Your task to perform on an android device: Search for sushi restaurants on Maps Image 0: 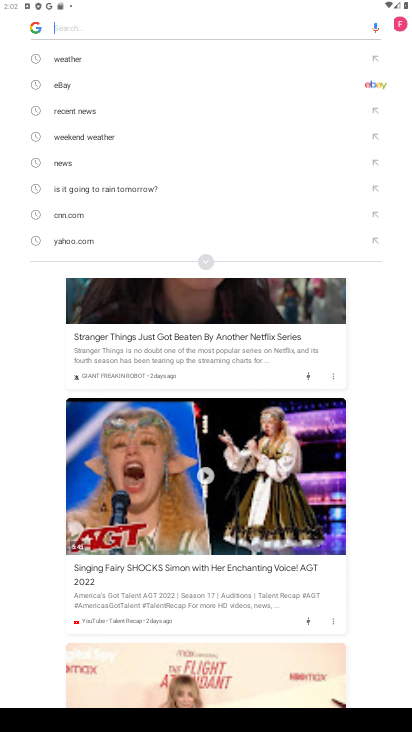
Step 0: press home button
Your task to perform on an android device: Search for sushi restaurants on Maps Image 1: 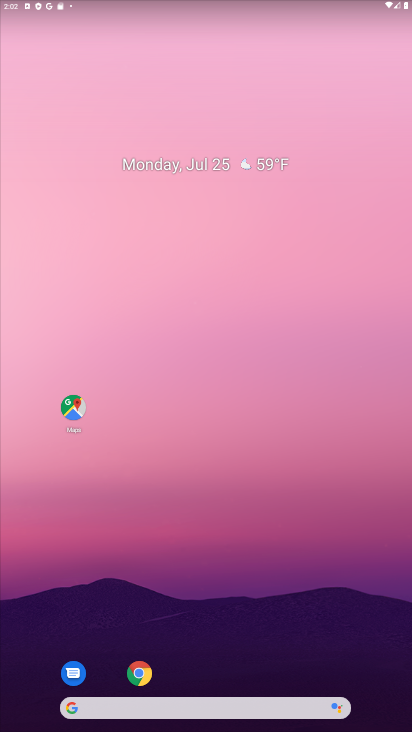
Step 1: click (61, 416)
Your task to perform on an android device: Search for sushi restaurants on Maps Image 2: 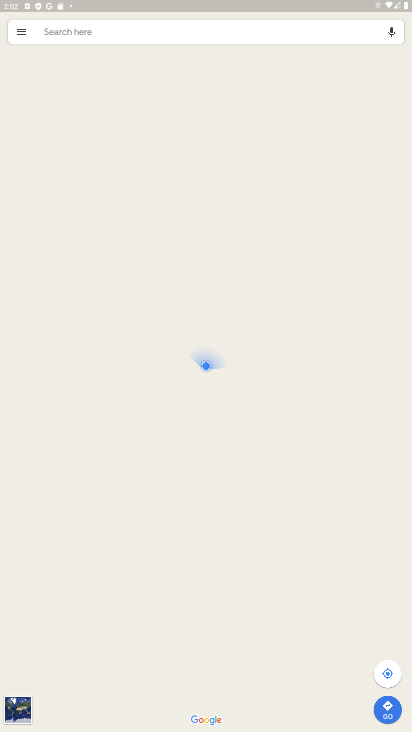
Step 2: click (52, 29)
Your task to perform on an android device: Search for sushi restaurants on Maps Image 3: 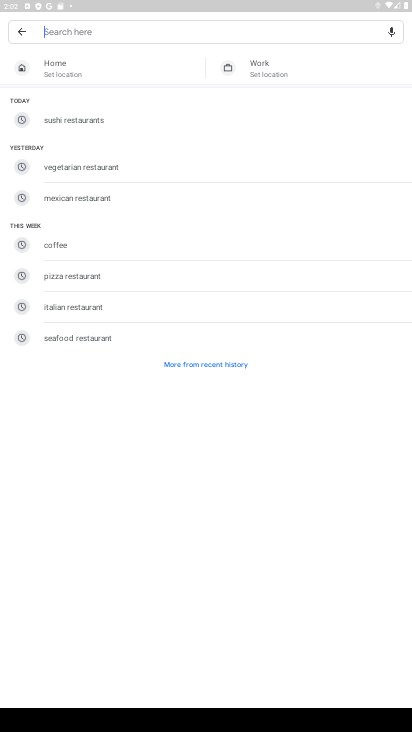
Step 3: click (77, 133)
Your task to perform on an android device: Search for sushi restaurants on Maps Image 4: 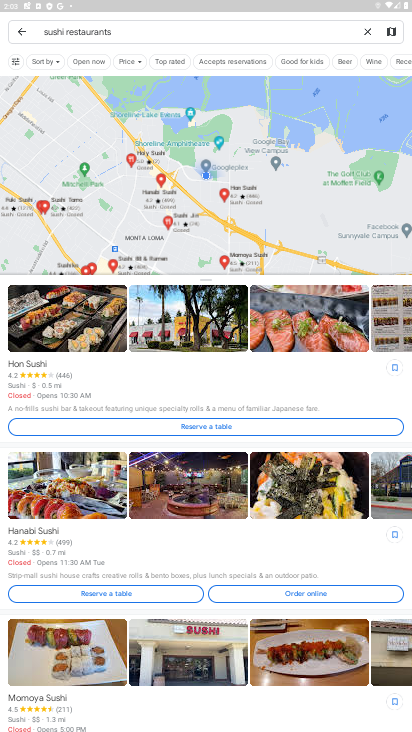
Step 4: task complete